Your task to perform on an android device: toggle translation in the chrome app Image 0: 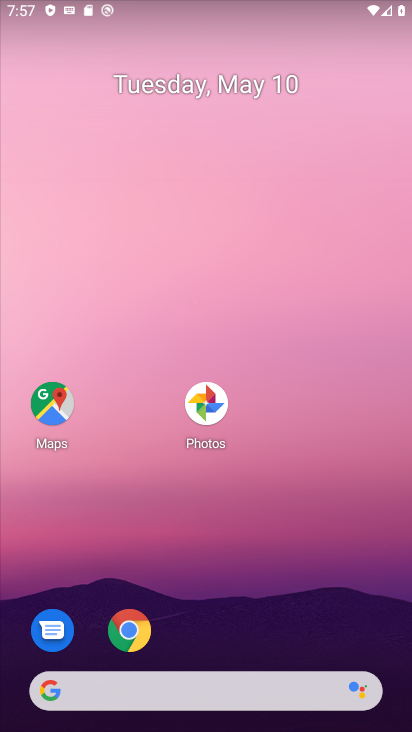
Step 0: drag from (177, 660) to (178, 37)
Your task to perform on an android device: toggle translation in the chrome app Image 1: 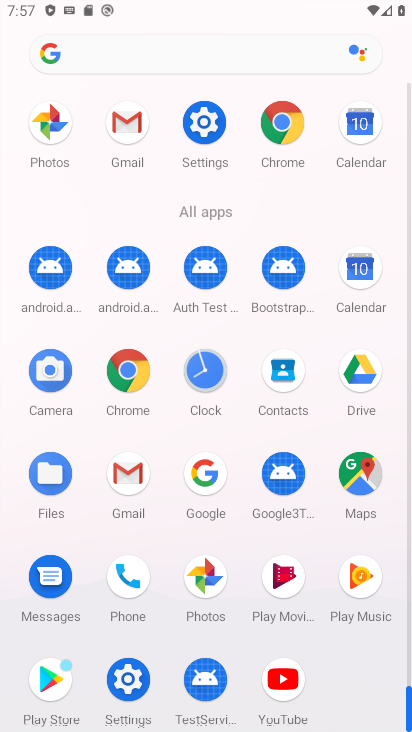
Step 1: click (126, 369)
Your task to perform on an android device: toggle translation in the chrome app Image 2: 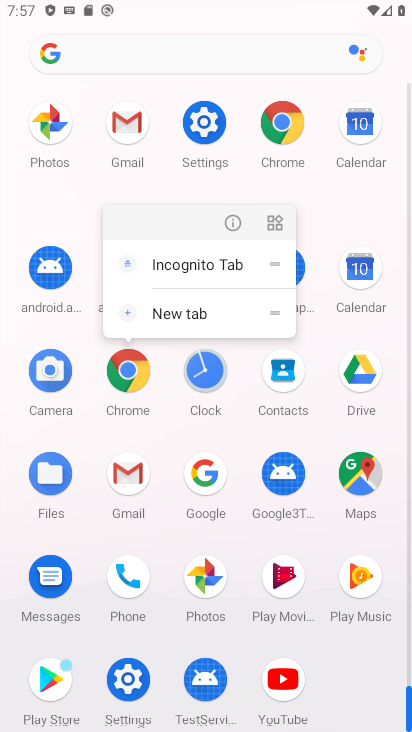
Step 2: click (142, 356)
Your task to perform on an android device: toggle translation in the chrome app Image 3: 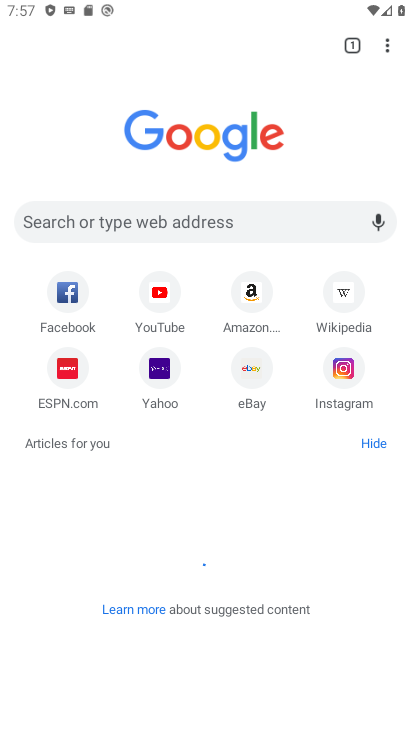
Step 3: click (384, 45)
Your task to perform on an android device: toggle translation in the chrome app Image 4: 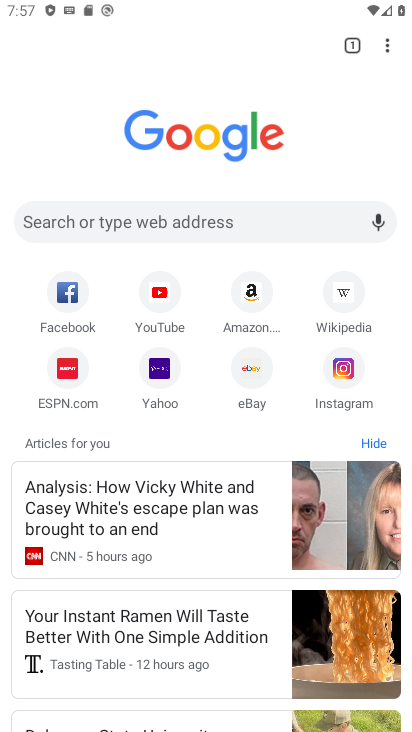
Step 4: drag from (384, 45) to (241, 371)
Your task to perform on an android device: toggle translation in the chrome app Image 5: 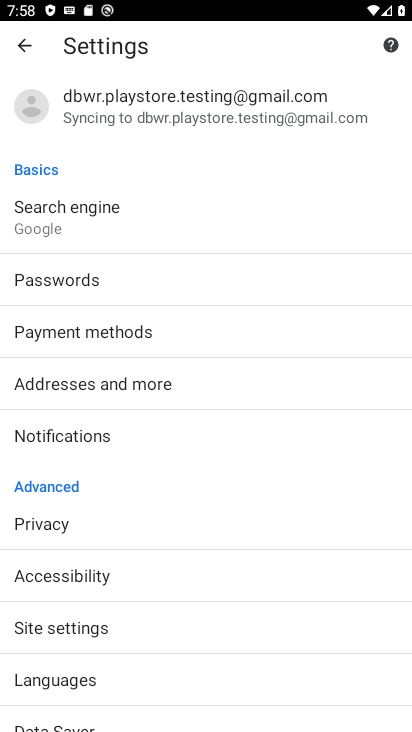
Step 5: drag from (83, 497) to (86, 100)
Your task to perform on an android device: toggle translation in the chrome app Image 6: 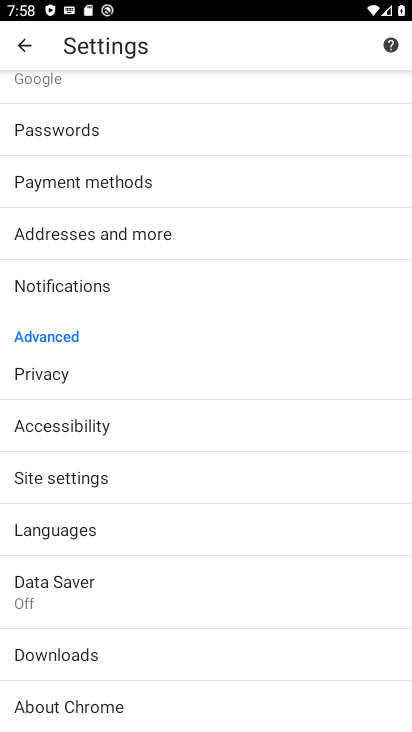
Step 6: click (57, 531)
Your task to perform on an android device: toggle translation in the chrome app Image 7: 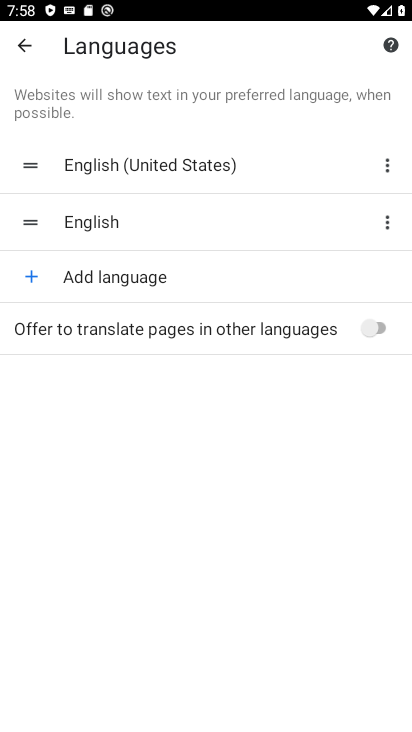
Step 7: click (119, 348)
Your task to perform on an android device: toggle translation in the chrome app Image 8: 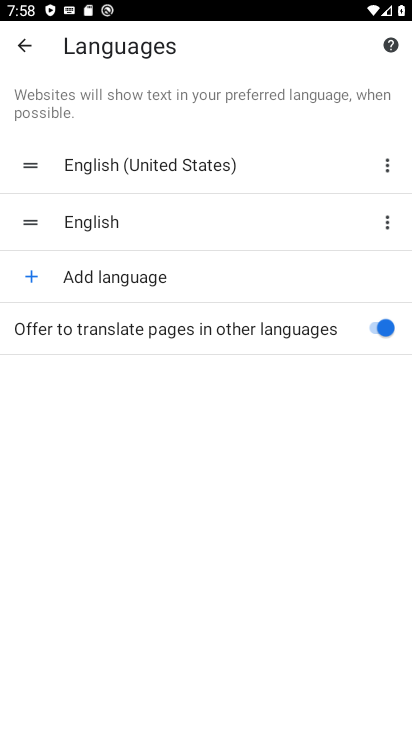
Step 8: task complete